Your task to perform on an android device: Go to internet settings Image 0: 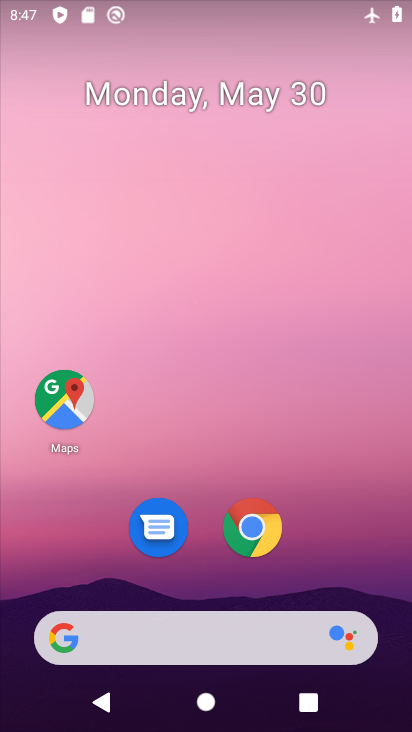
Step 0: drag from (316, 63) to (327, 20)
Your task to perform on an android device: Go to internet settings Image 1: 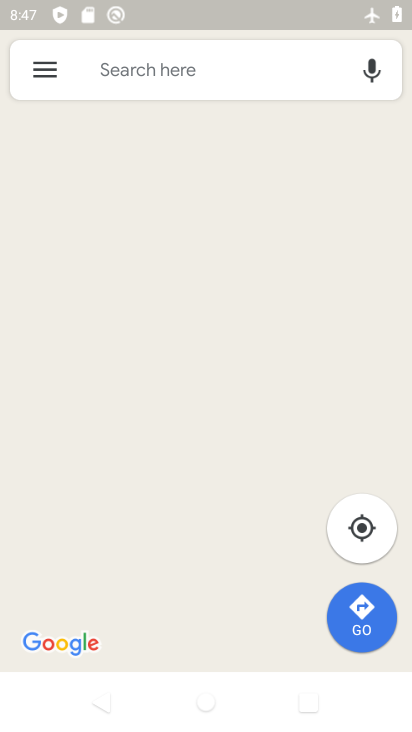
Step 1: press home button
Your task to perform on an android device: Go to internet settings Image 2: 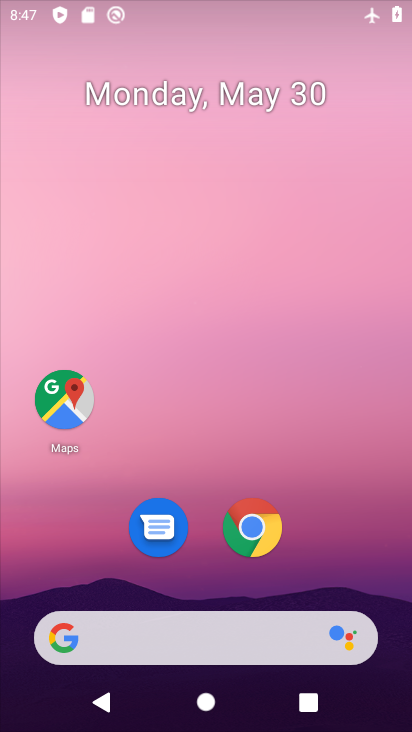
Step 2: drag from (112, 684) to (339, 12)
Your task to perform on an android device: Go to internet settings Image 3: 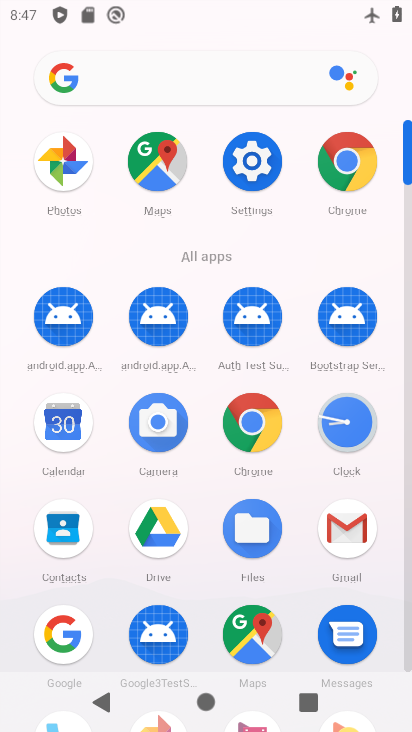
Step 3: click (266, 158)
Your task to perform on an android device: Go to internet settings Image 4: 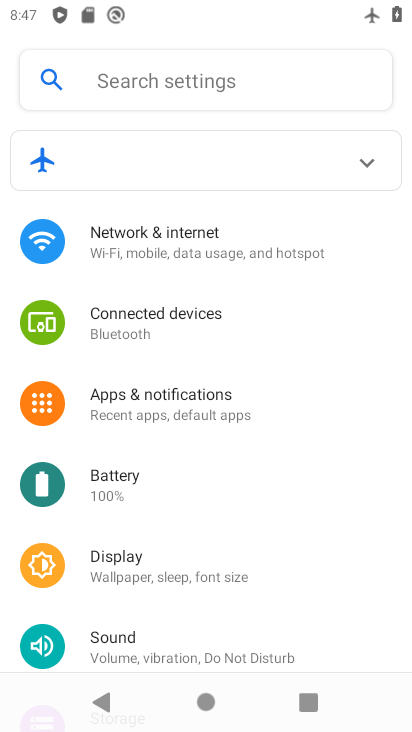
Step 4: click (167, 235)
Your task to perform on an android device: Go to internet settings Image 5: 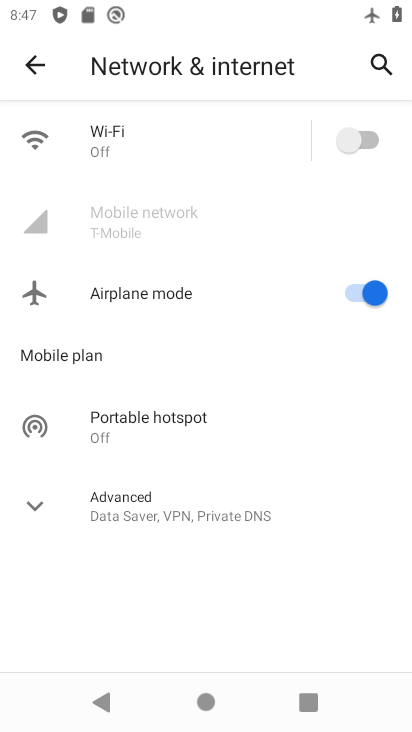
Step 5: task complete